Your task to perform on an android device: Open the phone app and click the voicemail tab. Image 0: 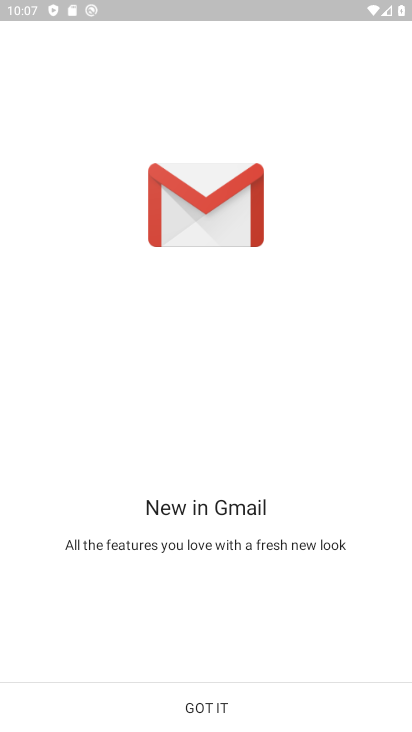
Step 0: press back button
Your task to perform on an android device: Open the phone app and click the voicemail tab. Image 1: 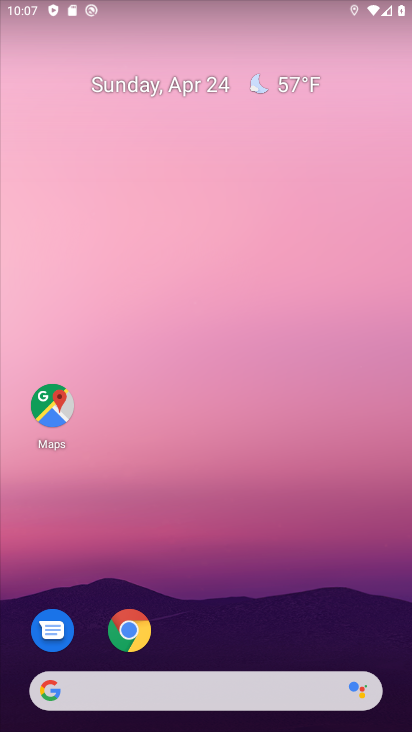
Step 1: drag from (203, 553) to (182, 15)
Your task to perform on an android device: Open the phone app and click the voicemail tab. Image 2: 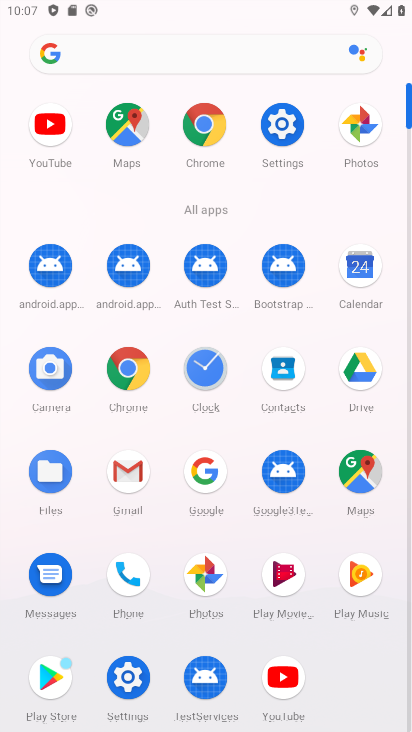
Step 2: click (123, 576)
Your task to perform on an android device: Open the phone app and click the voicemail tab. Image 3: 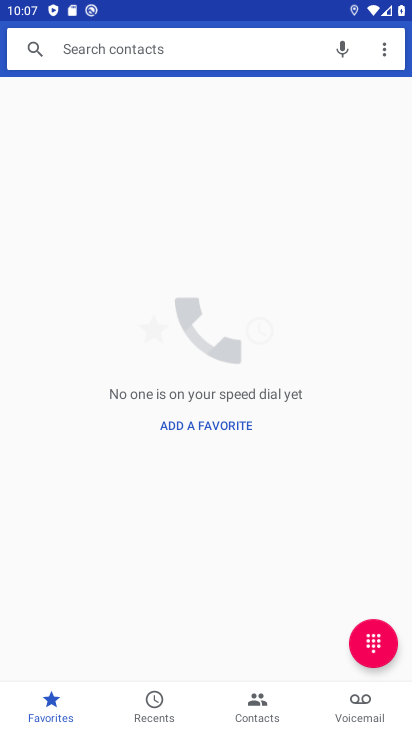
Step 3: click (361, 699)
Your task to perform on an android device: Open the phone app and click the voicemail tab. Image 4: 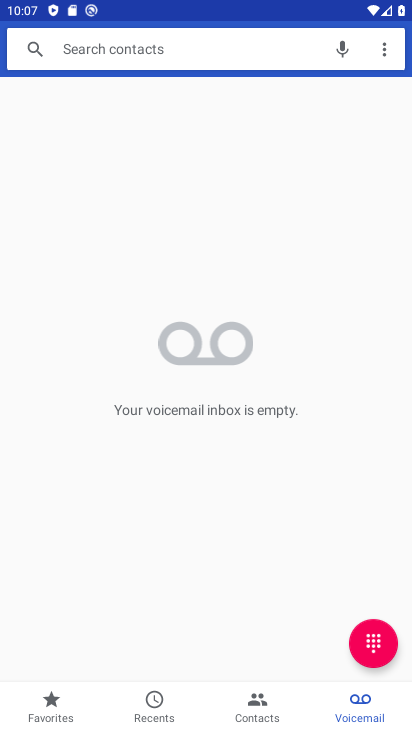
Step 4: task complete